Your task to perform on an android device: clear all cookies in the chrome app Image 0: 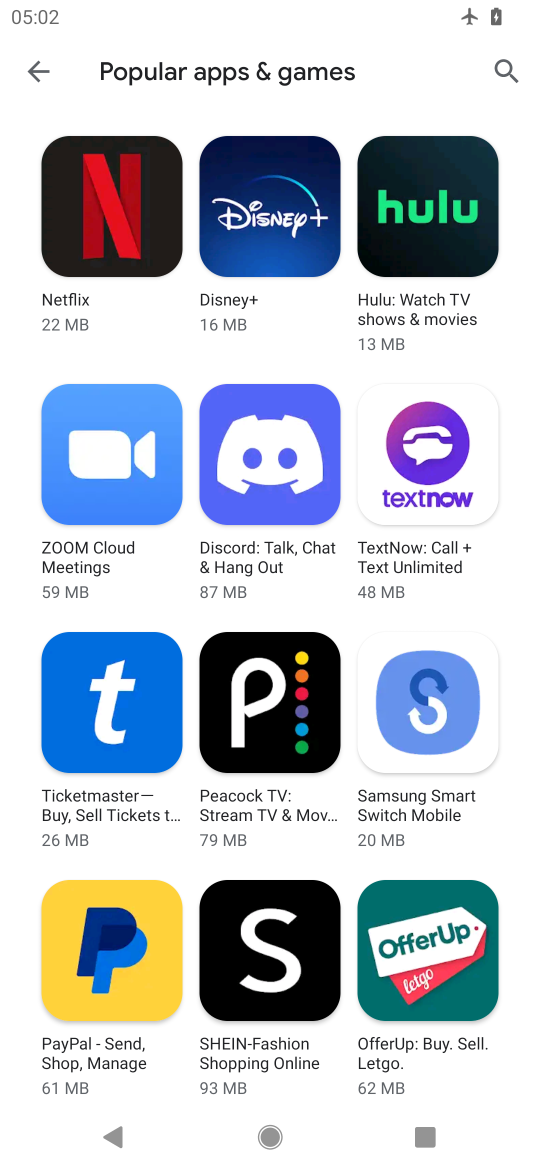
Step 0: press home button
Your task to perform on an android device: clear all cookies in the chrome app Image 1: 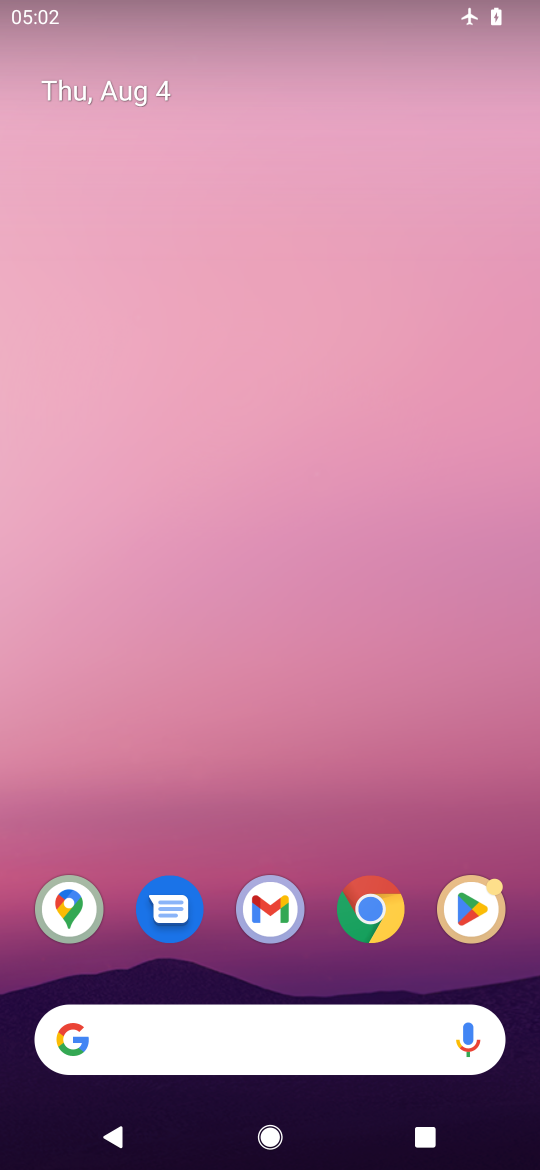
Step 1: click (388, 919)
Your task to perform on an android device: clear all cookies in the chrome app Image 2: 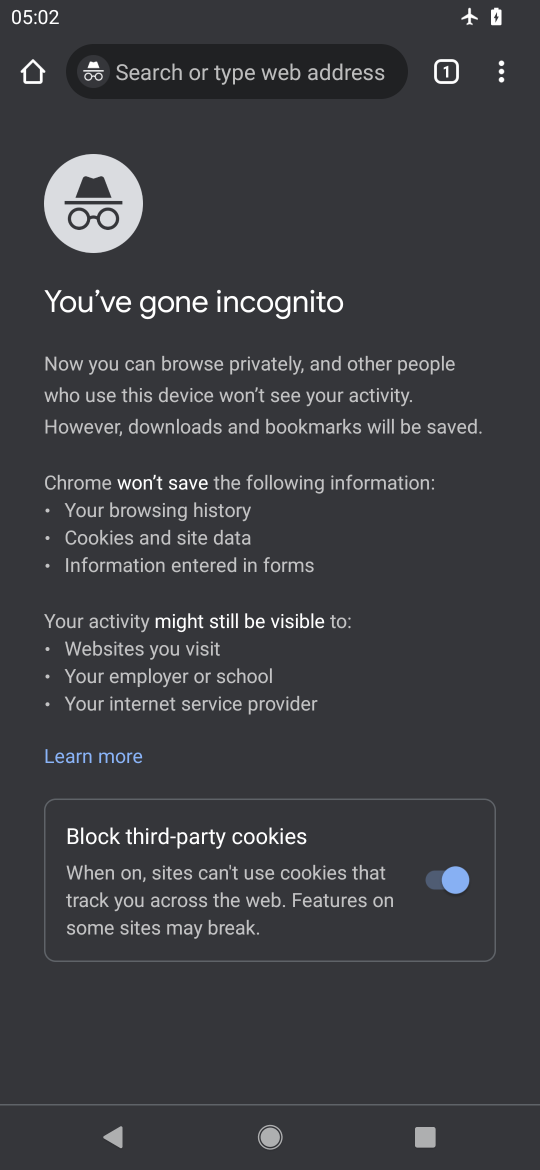
Step 2: drag from (508, 72) to (309, 672)
Your task to perform on an android device: clear all cookies in the chrome app Image 3: 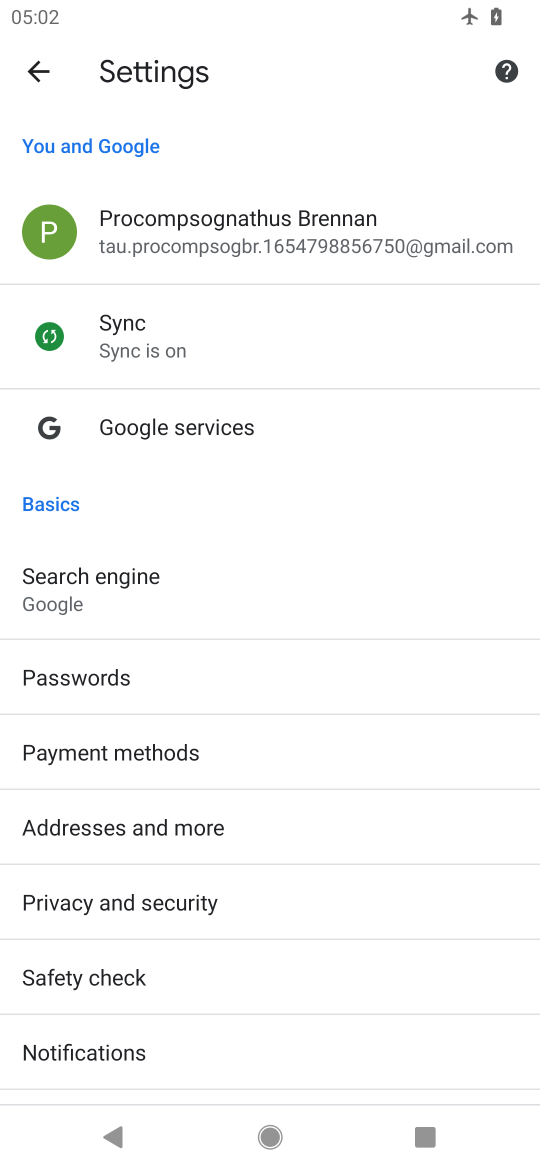
Step 3: drag from (210, 1006) to (222, 544)
Your task to perform on an android device: clear all cookies in the chrome app Image 4: 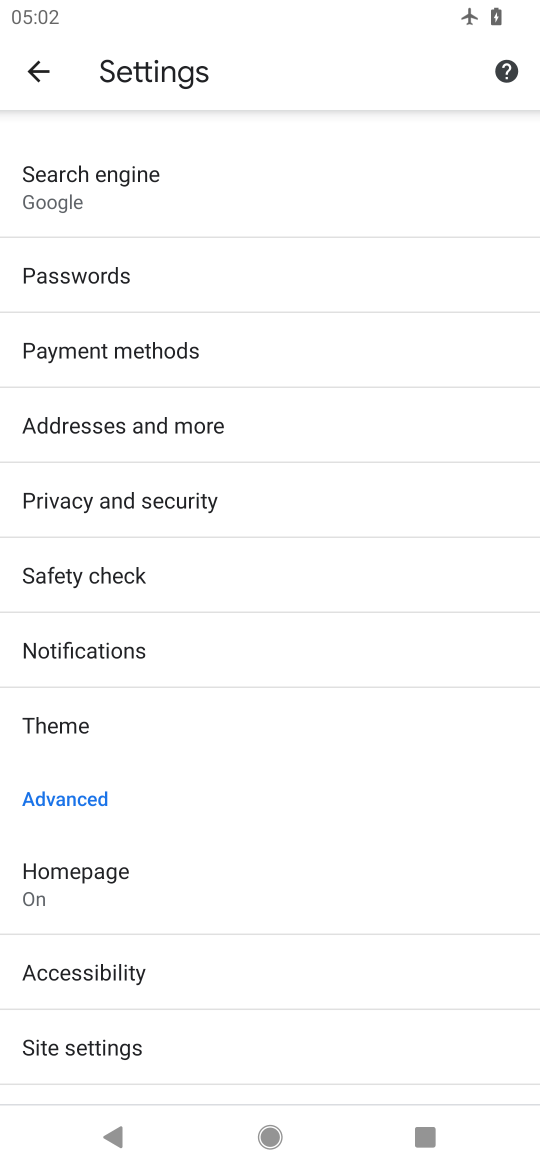
Step 4: drag from (280, 808) to (270, 754)
Your task to perform on an android device: clear all cookies in the chrome app Image 5: 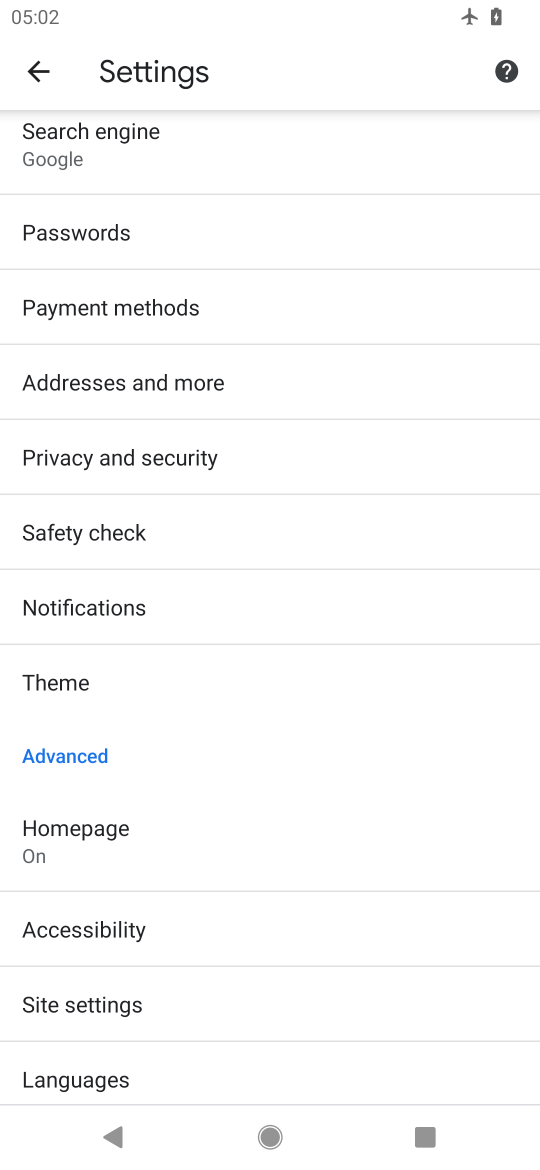
Step 5: click (52, 463)
Your task to perform on an android device: clear all cookies in the chrome app Image 6: 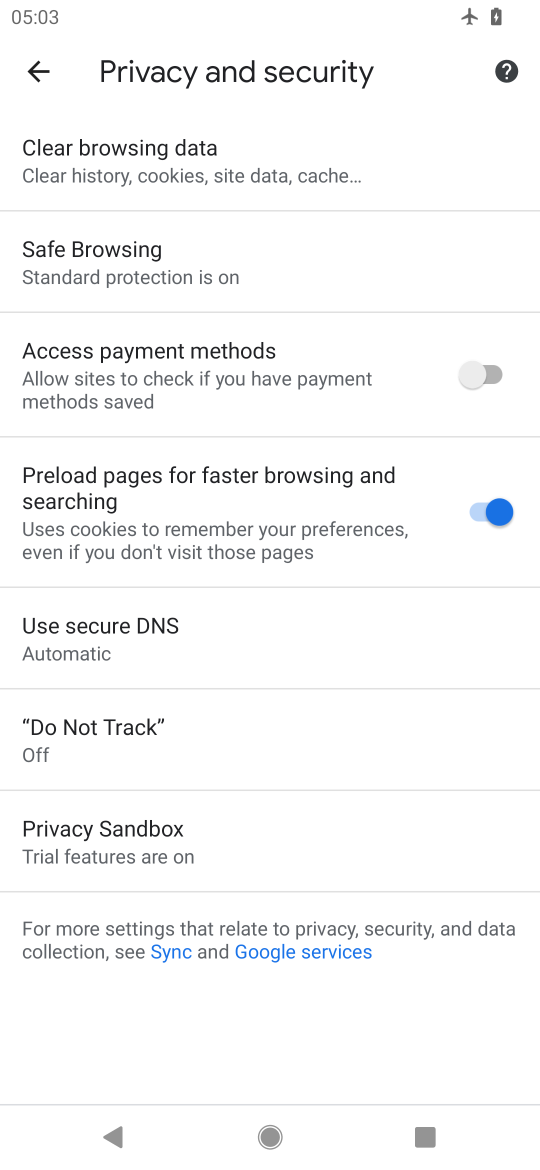
Step 6: click (177, 146)
Your task to perform on an android device: clear all cookies in the chrome app Image 7: 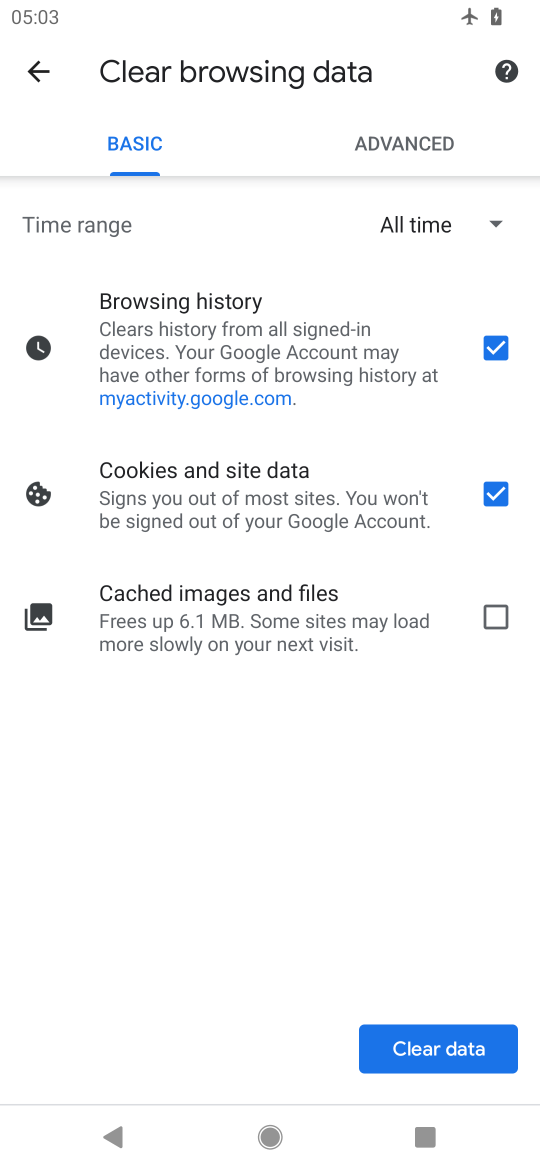
Step 7: click (493, 336)
Your task to perform on an android device: clear all cookies in the chrome app Image 8: 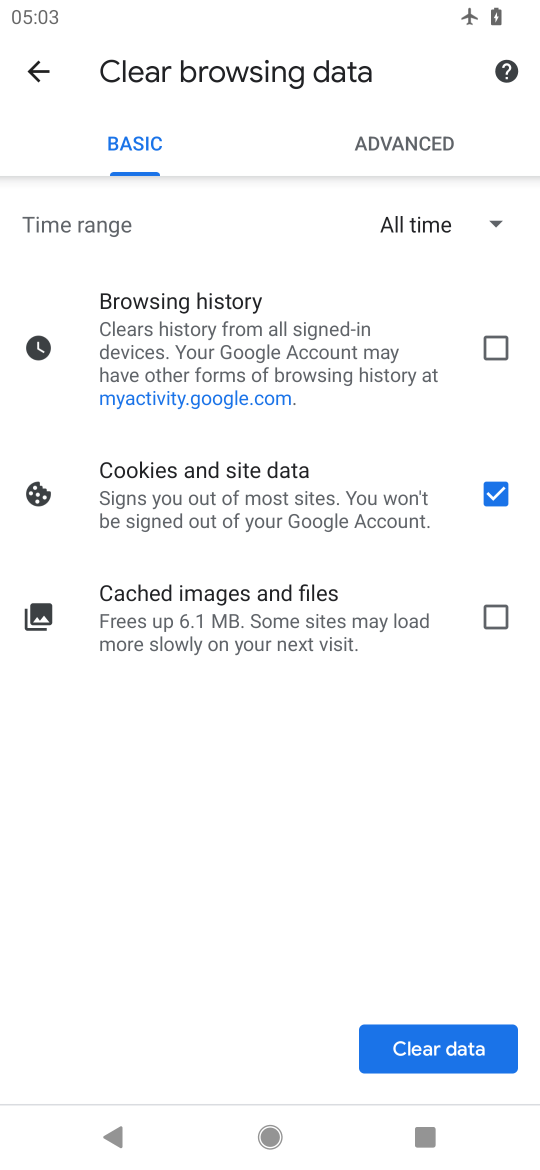
Step 8: click (451, 1091)
Your task to perform on an android device: clear all cookies in the chrome app Image 9: 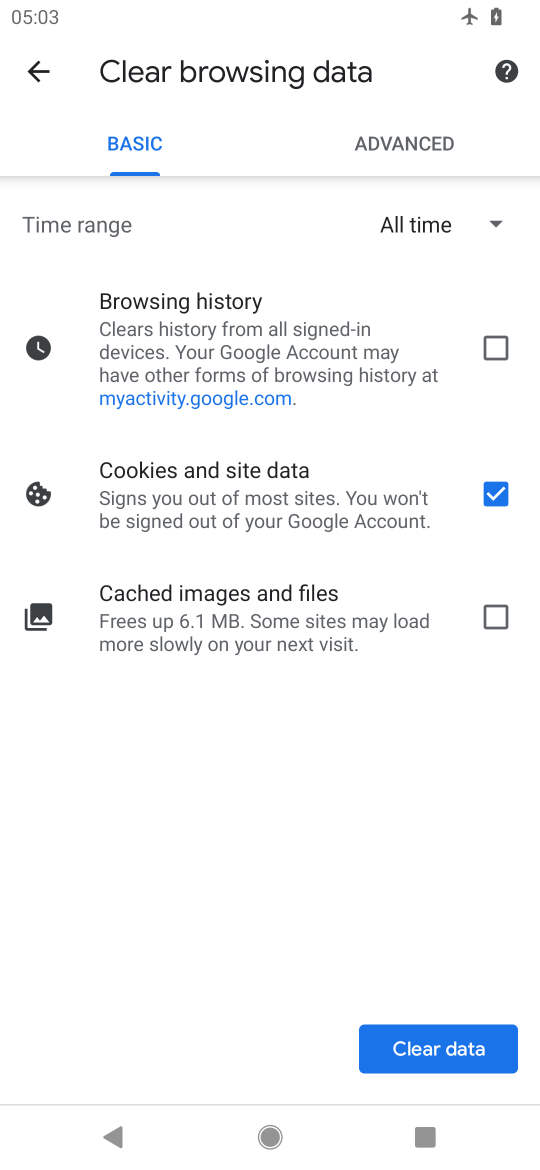
Step 9: click (461, 1055)
Your task to perform on an android device: clear all cookies in the chrome app Image 10: 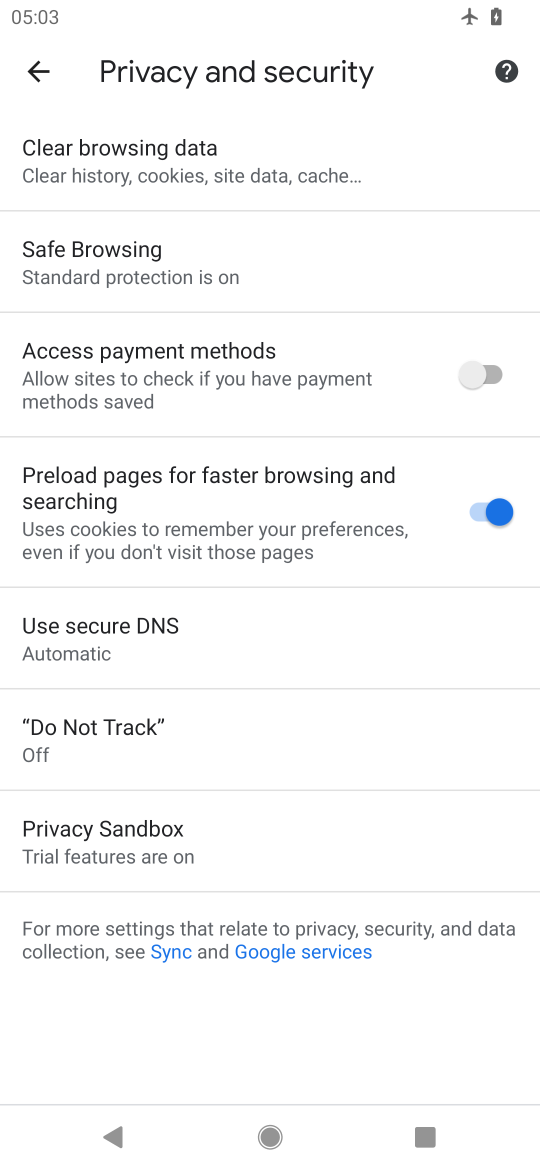
Step 10: task complete